Your task to perform on an android device: change timer sound Image 0: 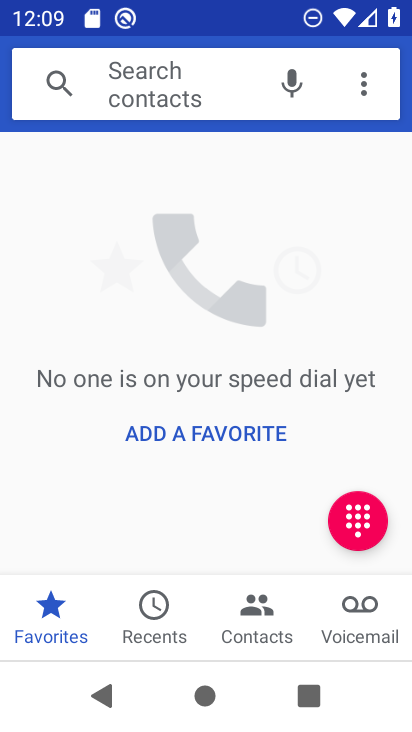
Step 0: press home button
Your task to perform on an android device: change timer sound Image 1: 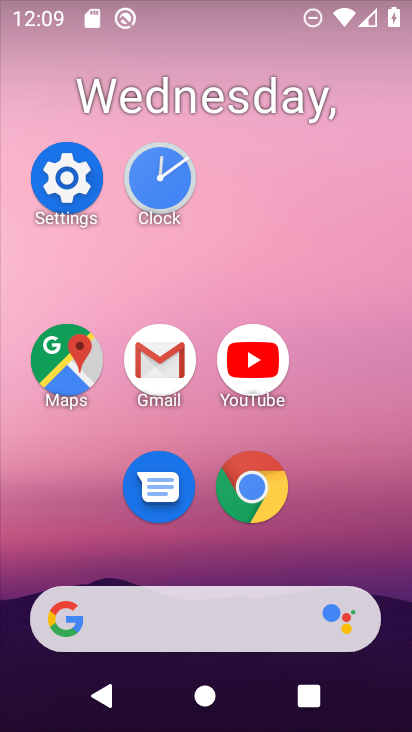
Step 1: click (169, 169)
Your task to perform on an android device: change timer sound Image 2: 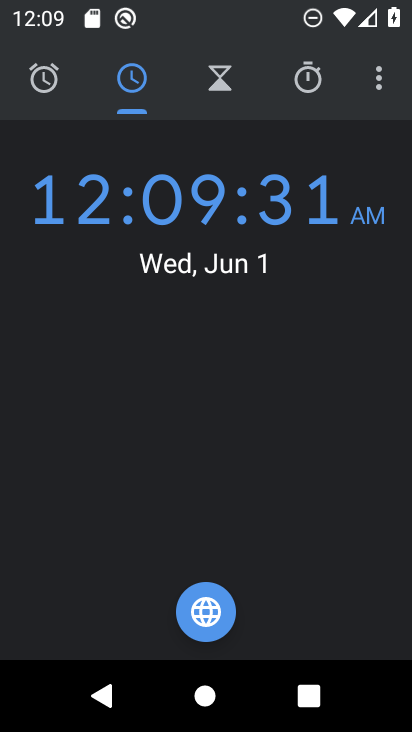
Step 2: click (390, 79)
Your task to perform on an android device: change timer sound Image 3: 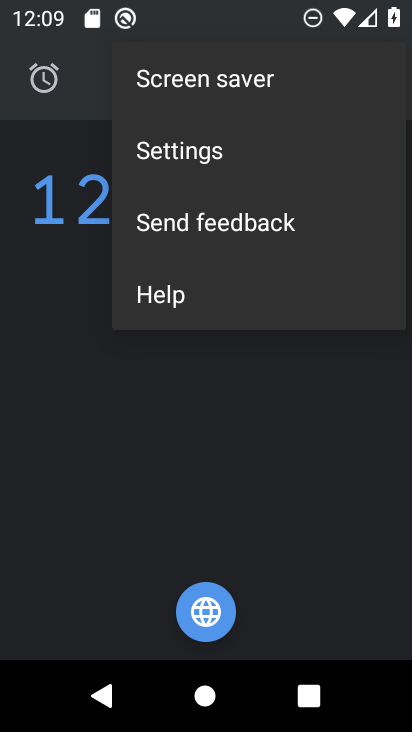
Step 3: click (278, 149)
Your task to perform on an android device: change timer sound Image 4: 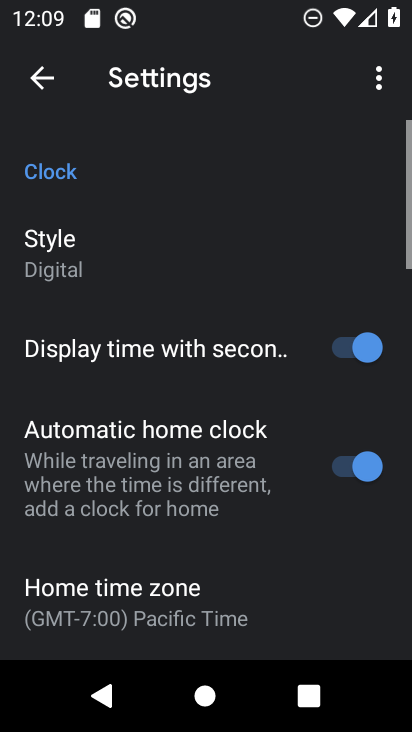
Step 4: drag from (190, 518) to (226, 65)
Your task to perform on an android device: change timer sound Image 5: 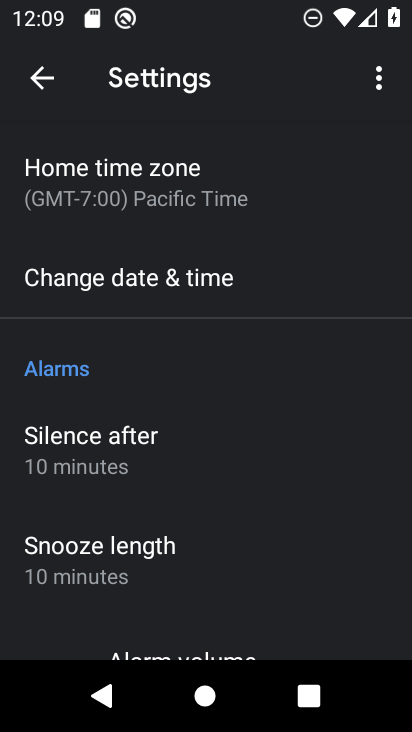
Step 5: drag from (187, 527) to (234, 114)
Your task to perform on an android device: change timer sound Image 6: 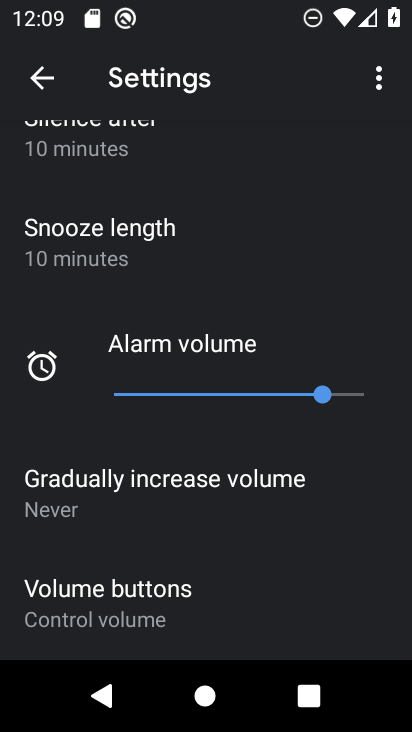
Step 6: drag from (225, 554) to (173, 151)
Your task to perform on an android device: change timer sound Image 7: 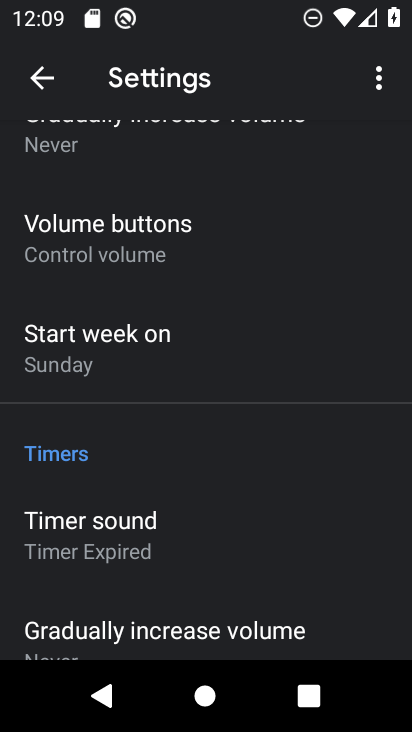
Step 7: click (81, 544)
Your task to perform on an android device: change timer sound Image 8: 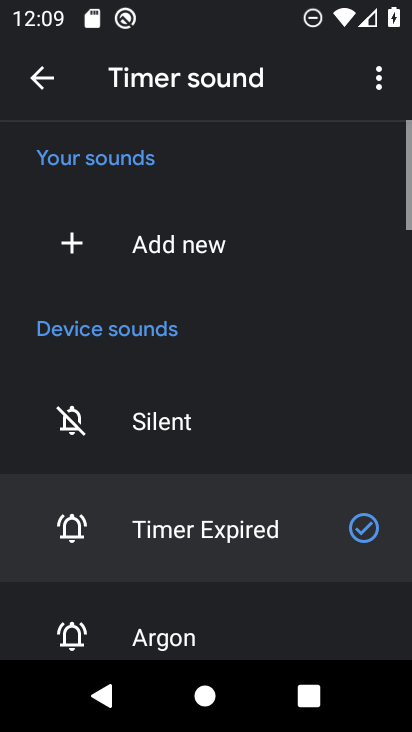
Step 8: click (175, 635)
Your task to perform on an android device: change timer sound Image 9: 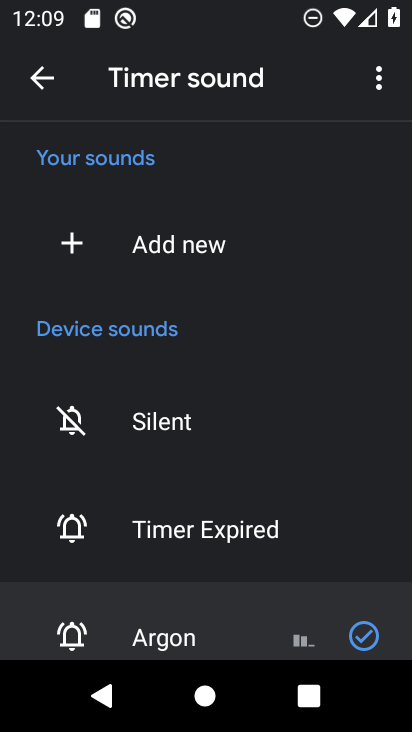
Step 9: task complete